Your task to perform on an android device: turn on notifications settings in the gmail app Image 0: 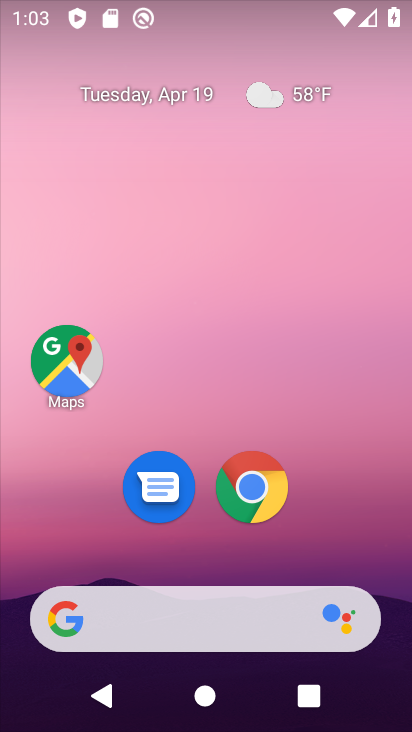
Step 0: drag from (200, 724) to (204, 94)
Your task to perform on an android device: turn on notifications settings in the gmail app Image 1: 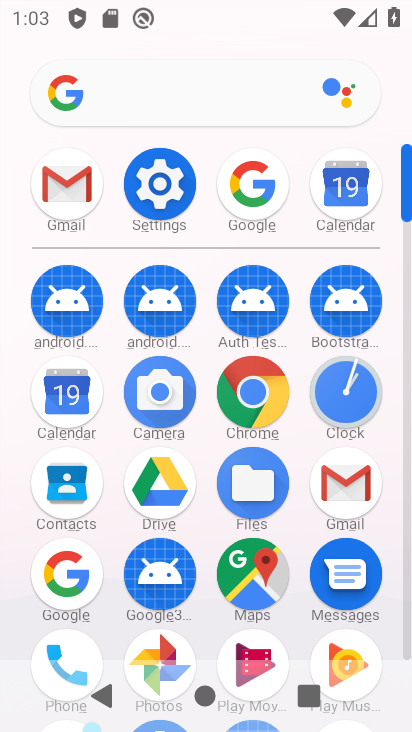
Step 1: click (337, 489)
Your task to perform on an android device: turn on notifications settings in the gmail app Image 2: 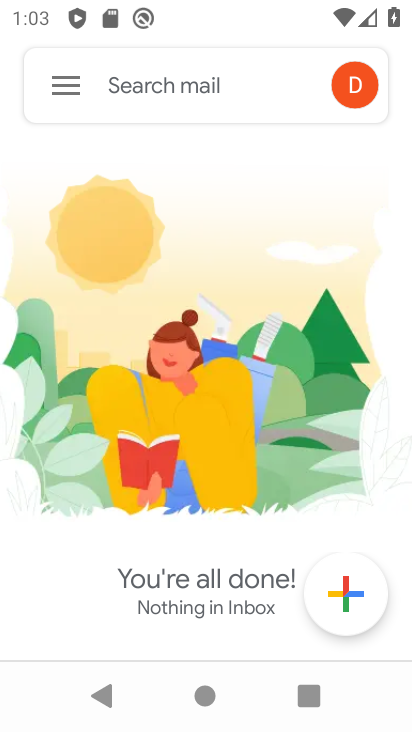
Step 2: click (70, 82)
Your task to perform on an android device: turn on notifications settings in the gmail app Image 3: 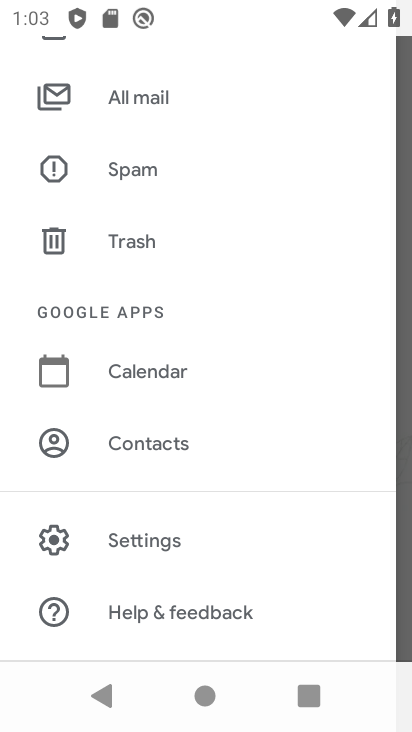
Step 3: click (138, 538)
Your task to perform on an android device: turn on notifications settings in the gmail app Image 4: 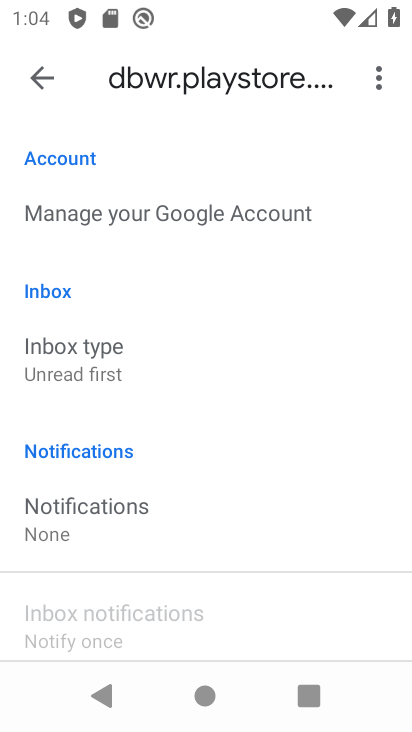
Step 4: click (95, 505)
Your task to perform on an android device: turn on notifications settings in the gmail app Image 5: 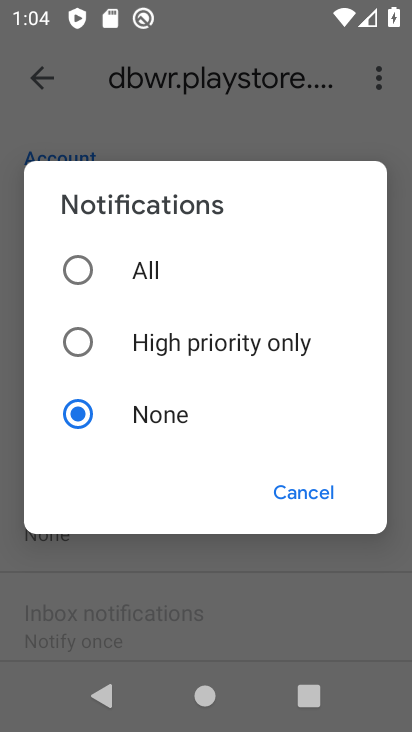
Step 5: click (79, 265)
Your task to perform on an android device: turn on notifications settings in the gmail app Image 6: 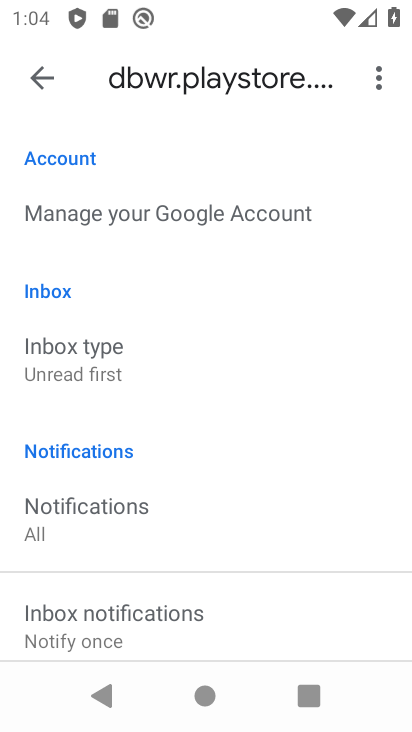
Step 6: task complete